Your task to perform on an android device: Search for Italian restaurants on Maps Image 0: 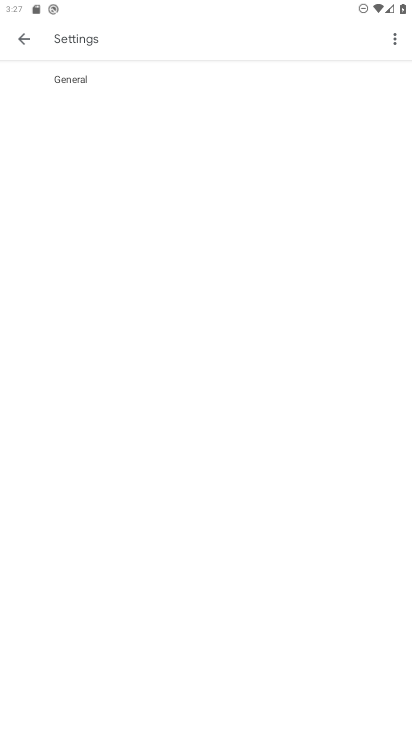
Step 0: press home button
Your task to perform on an android device: Search for Italian restaurants on Maps Image 1: 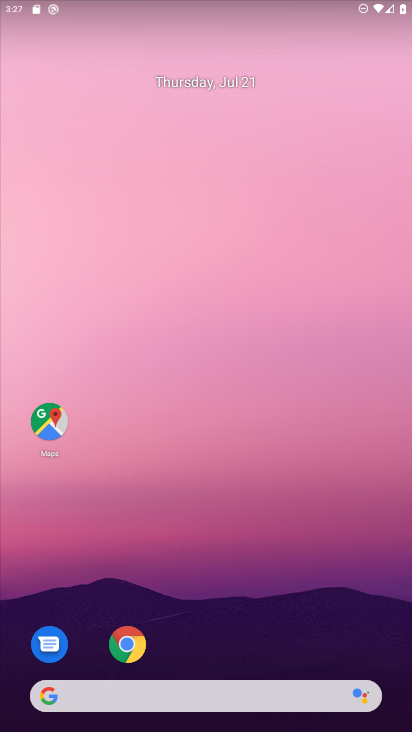
Step 1: click (31, 428)
Your task to perform on an android device: Search for Italian restaurants on Maps Image 2: 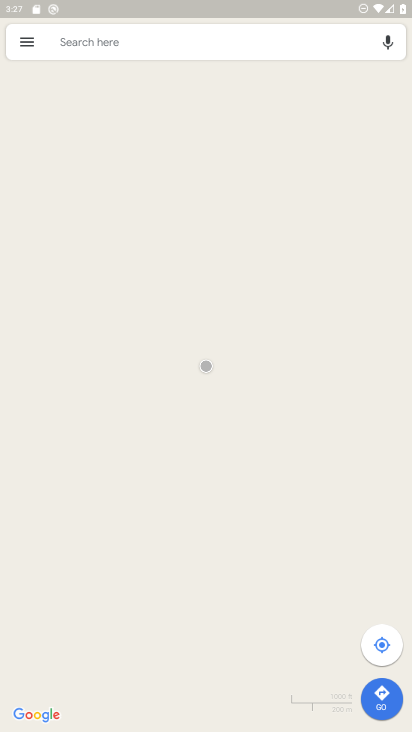
Step 2: click (208, 47)
Your task to perform on an android device: Search for Italian restaurants on Maps Image 3: 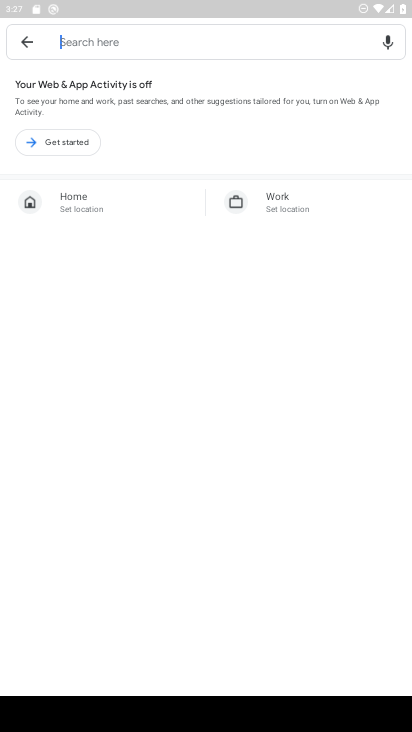
Step 3: type "Italian restaurants"
Your task to perform on an android device: Search for Italian restaurants on Maps Image 4: 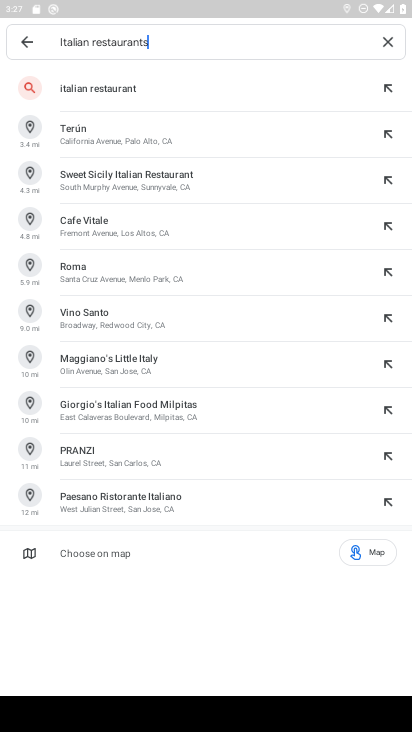
Step 4: click (168, 84)
Your task to perform on an android device: Search for Italian restaurants on Maps Image 5: 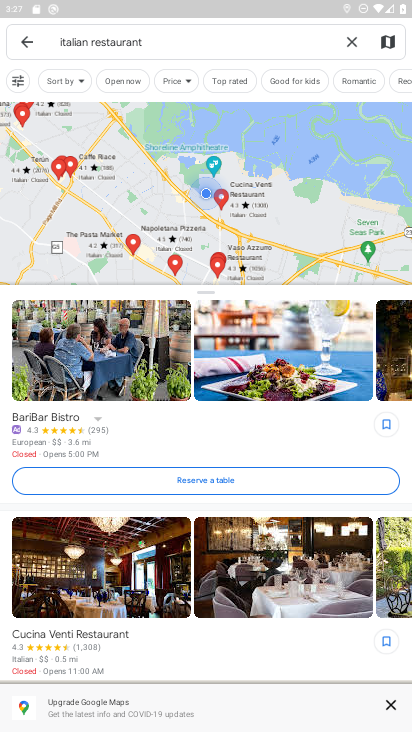
Step 5: task complete